Your task to perform on an android device: change the clock display to analog Image 0: 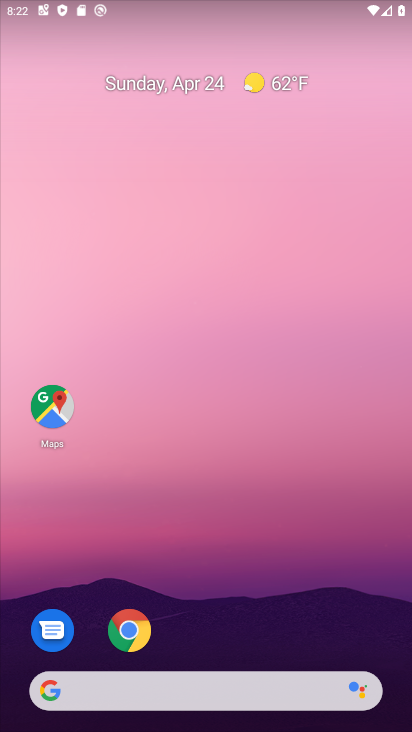
Step 0: drag from (302, 520) to (290, 26)
Your task to perform on an android device: change the clock display to analog Image 1: 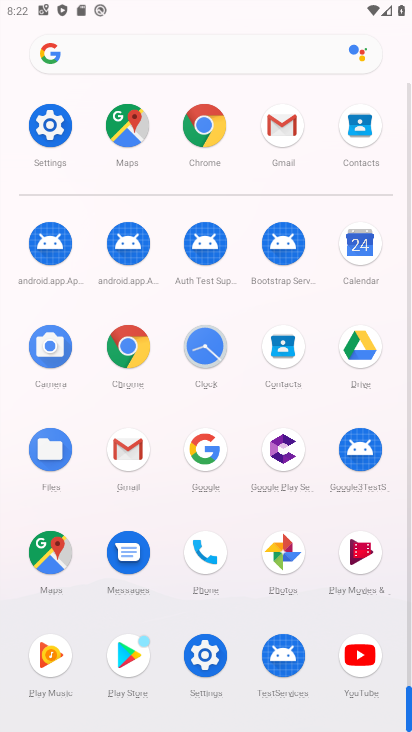
Step 1: drag from (9, 542) to (18, 310)
Your task to perform on an android device: change the clock display to analog Image 2: 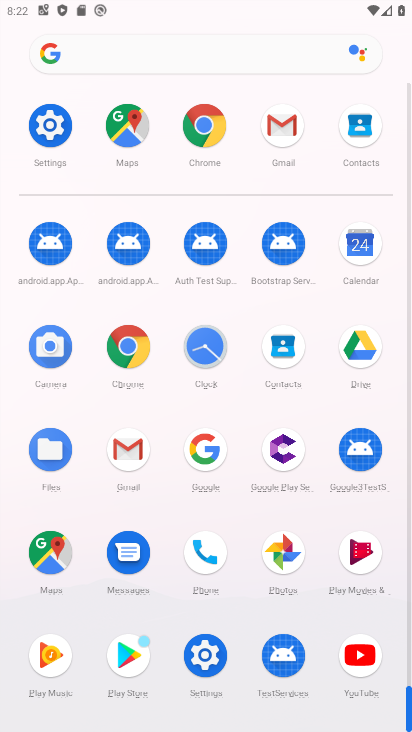
Step 2: click (206, 342)
Your task to perform on an android device: change the clock display to analog Image 3: 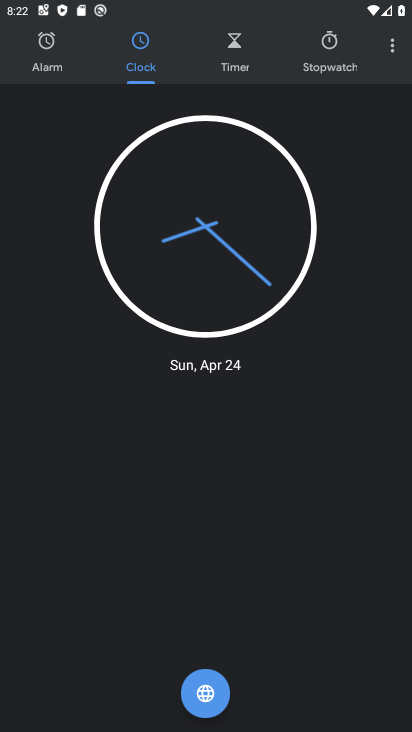
Step 3: click (393, 50)
Your task to perform on an android device: change the clock display to analog Image 4: 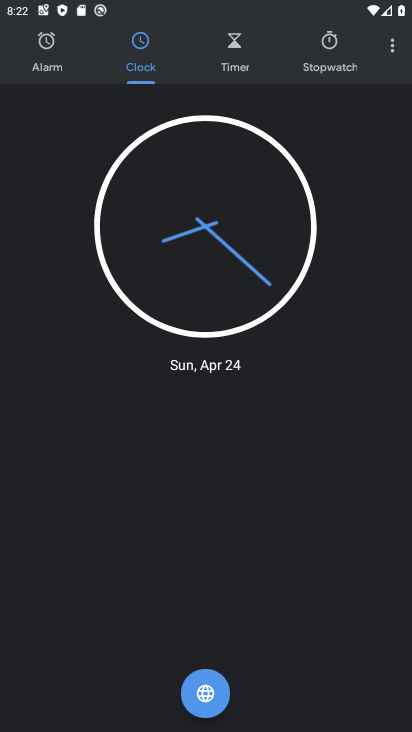
Step 4: task complete